Your task to perform on an android device: turn on data saver in the chrome app Image 0: 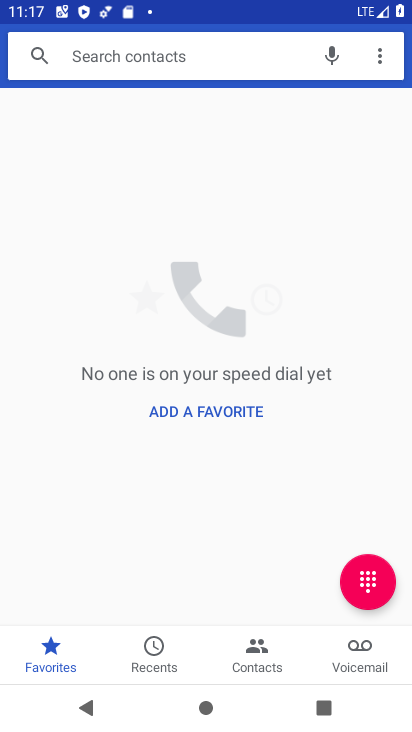
Step 0: press home button
Your task to perform on an android device: turn on data saver in the chrome app Image 1: 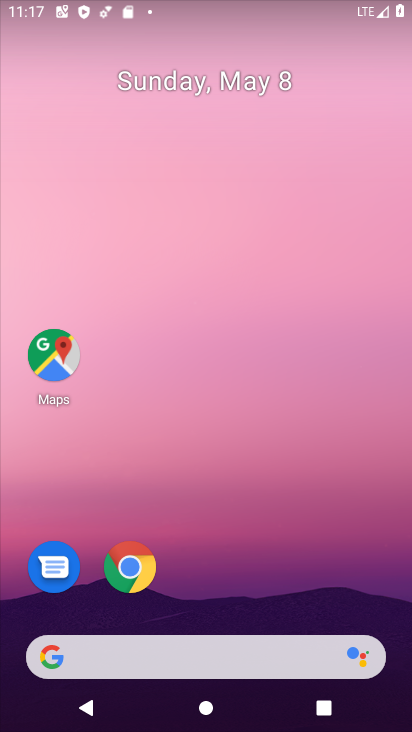
Step 1: click (129, 565)
Your task to perform on an android device: turn on data saver in the chrome app Image 2: 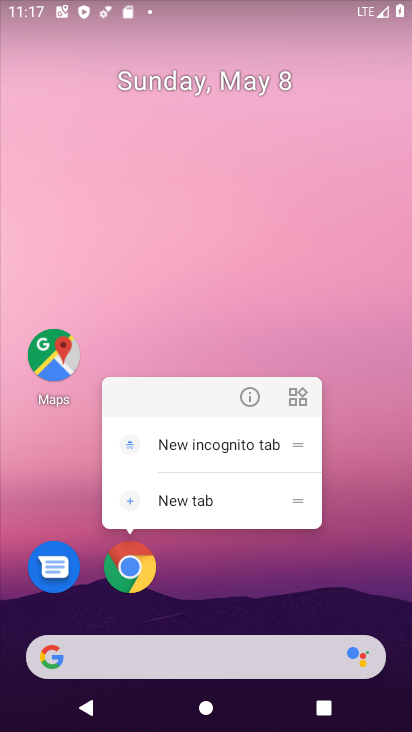
Step 2: click (122, 562)
Your task to perform on an android device: turn on data saver in the chrome app Image 3: 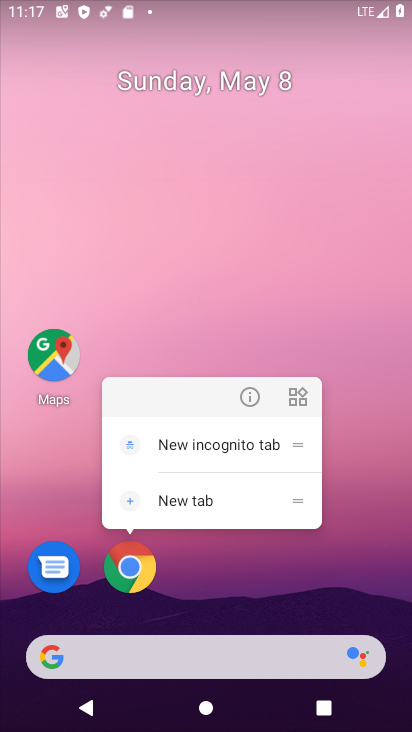
Step 3: click (251, 595)
Your task to perform on an android device: turn on data saver in the chrome app Image 4: 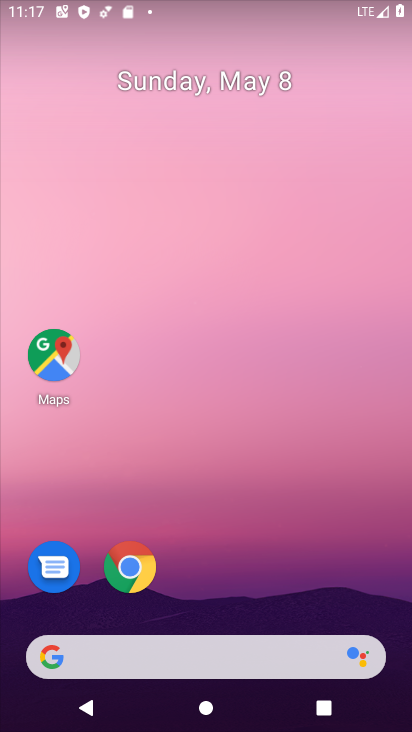
Step 4: drag from (270, 611) to (264, 16)
Your task to perform on an android device: turn on data saver in the chrome app Image 5: 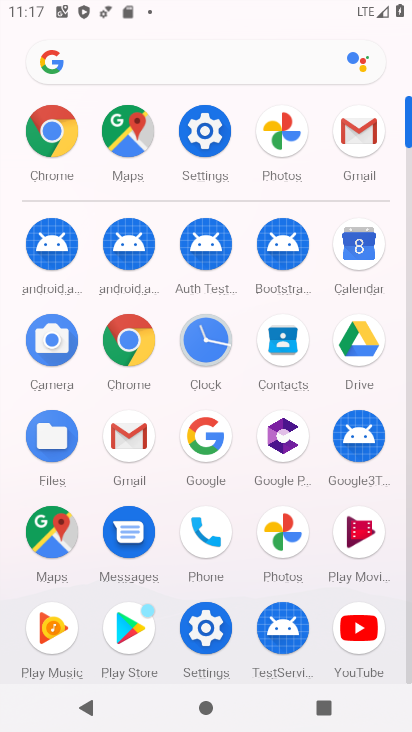
Step 5: click (129, 337)
Your task to perform on an android device: turn on data saver in the chrome app Image 6: 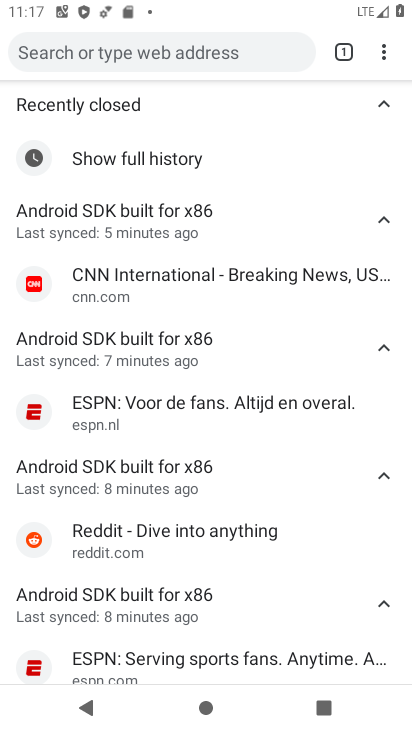
Step 6: click (384, 48)
Your task to perform on an android device: turn on data saver in the chrome app Image 7: 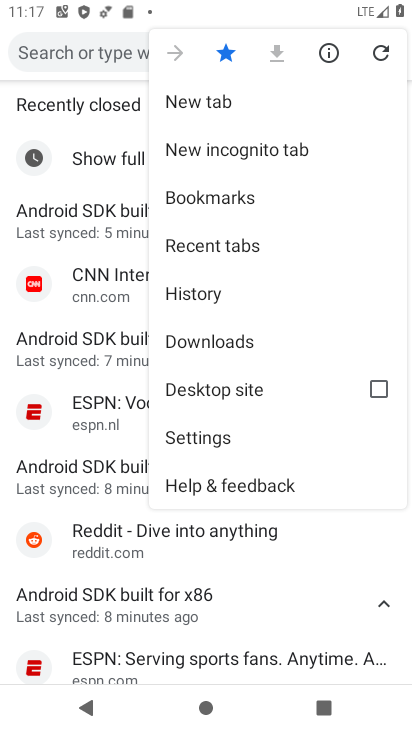
Step 7: click (236, 434)
Your task to perform on an android device: turn on data saver in the chrome app Image 8: 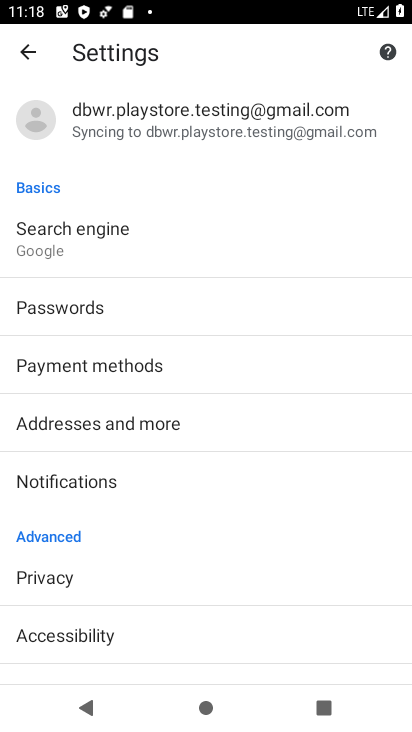
Step 8: drag from (184, 632) to (230, 100)
Your task to perform on an android device: turn on data saver in the chrome app Image 9: 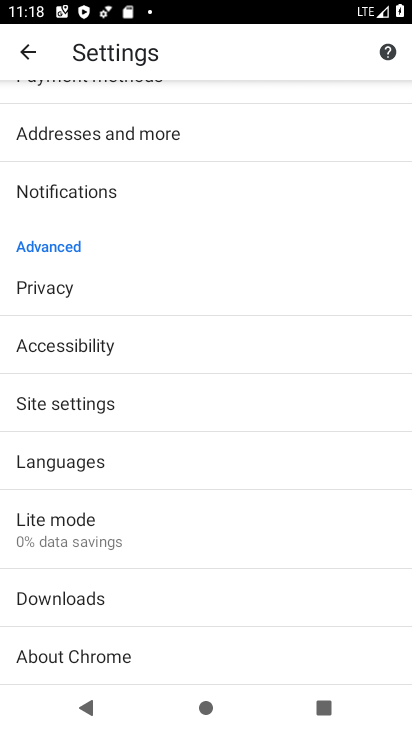
Step 9: click (151, 528)
Your task to perform on an android device: turn on data saver in the chrome app Image 10: 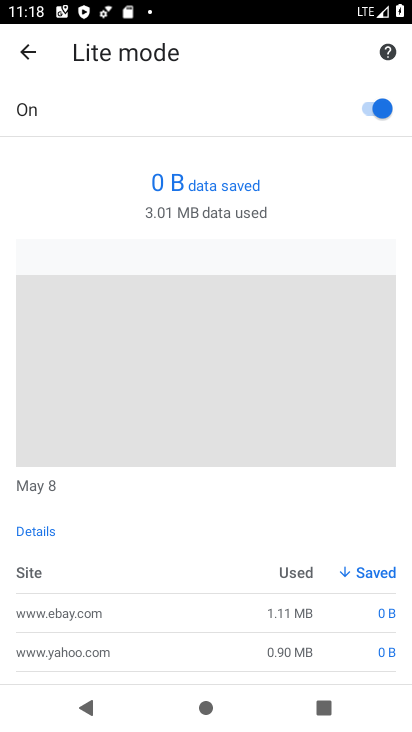
Step 10: task complete